Your task to perform on an android device: Toggle the flashlight Image 0: 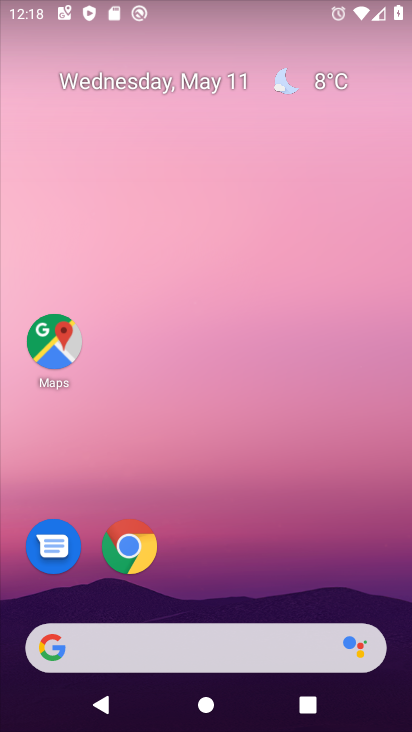
Step 0: drag from (240, 5) to (249, 401)
Your task to perform on an android device: Toggle the flashlight Image 1: 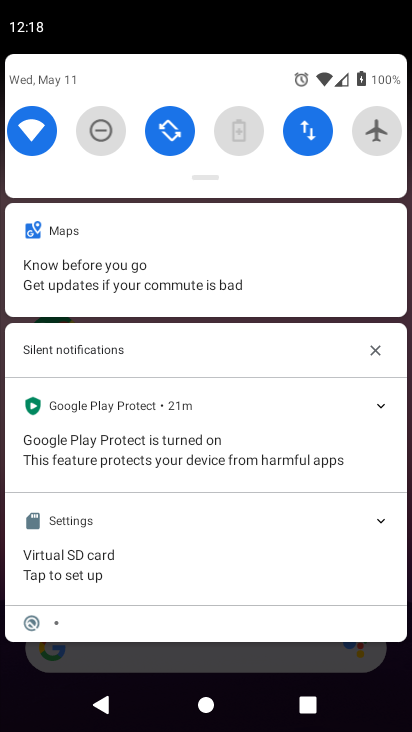
Step 1: task complete